Your task to perform on an android device: toggle priority inbox in the gmail app Image 0: 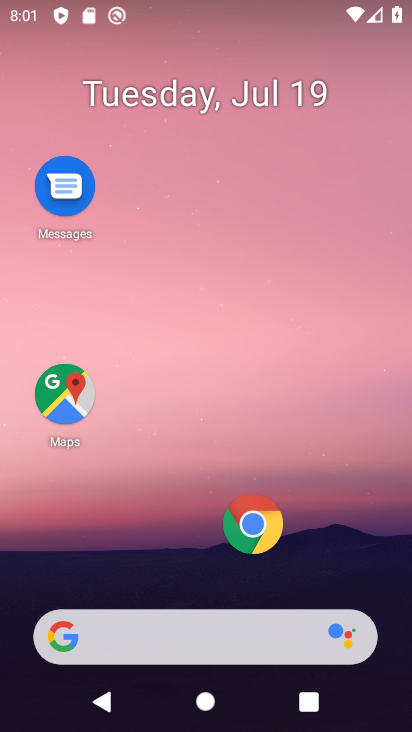
Step 0: drag from (185, 574) to (371, 168)
Your task to perform on an android device: toggle priority inbox in the gmail app Image 1: 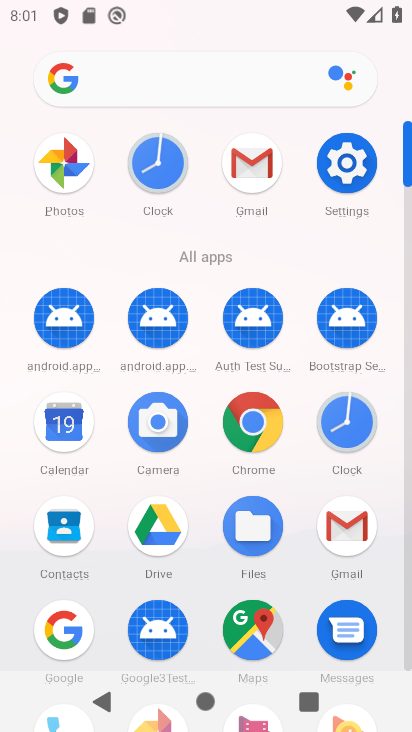
Step 1: click (349, 540)
Your task to perform on an android device: toggle priority inbox in the gmail app Image 2: 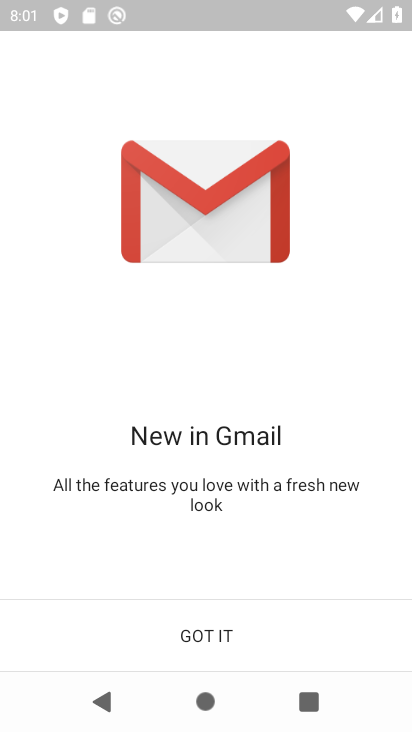
Step 2: click (170, 628)
Your task to perform on an android device: toggle priority inbox in the gmail app Image 3: 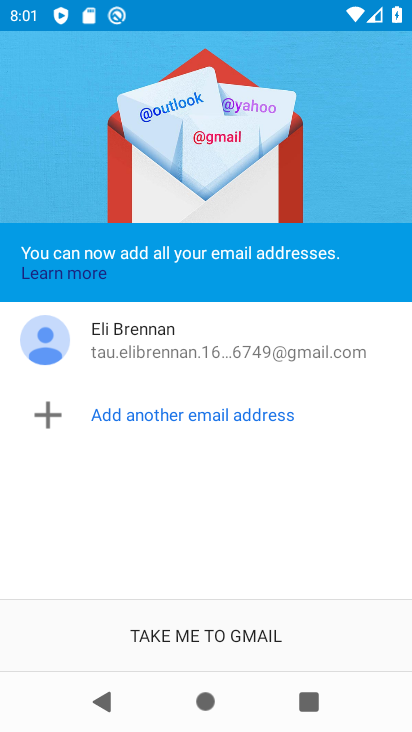
Step 3: click (170, 628)
Your task to perform on an android device: toggle priority inbox in the gmail app Image 4: 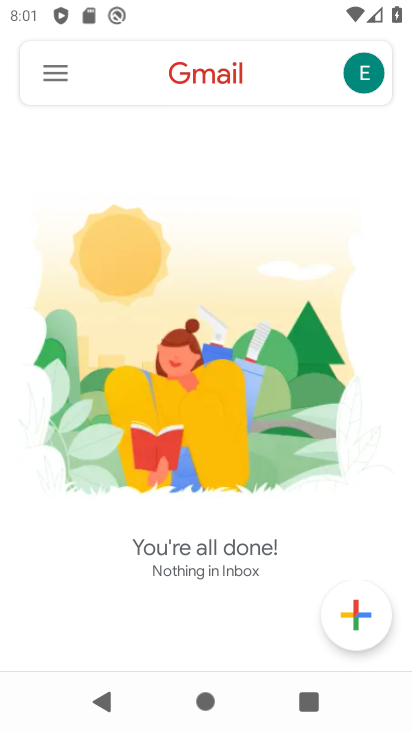
Step 4: click (45, 58)
Your task to perform on an android device: toggle priority inbox in the gmail app Image 5: 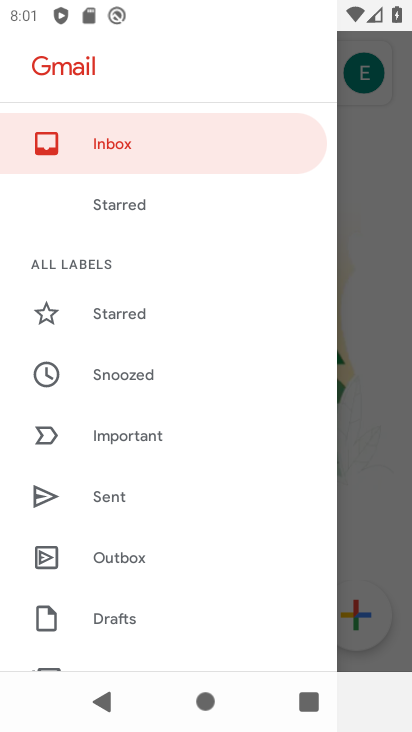
Step 5: drag from (179, 580) to (189, 27)
Your task to perform on an android device: toggle priority inbox in the gmail app Image 6: 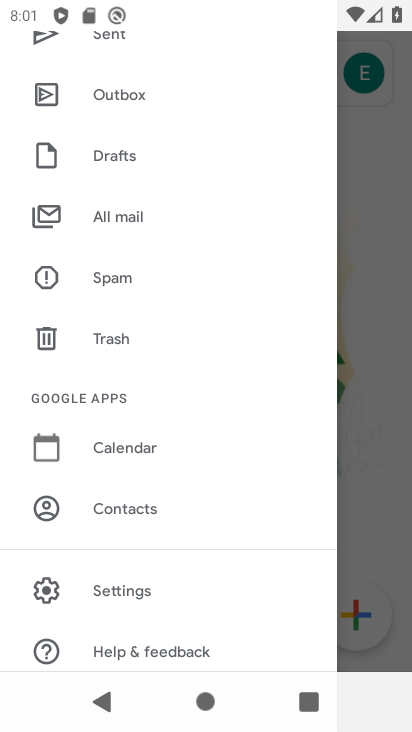
Step 6: click (68, 570)
Your task to perform on an android device: toggle priority inbox in the gmail app Image 7: 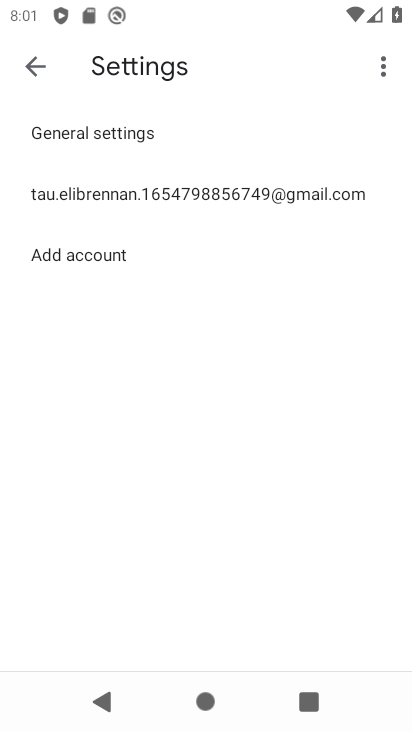
Step 7: click (94, 199)
Your task to perform on an android device: toggle priority inbox in the gmail app Image 8: 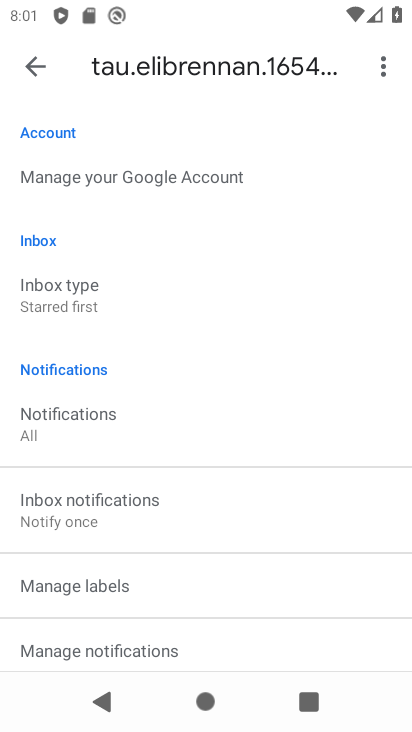
Step 8: click (41, 290)
Your task to perform on an android device: toggle priority inbox in the gmail app Image 9: 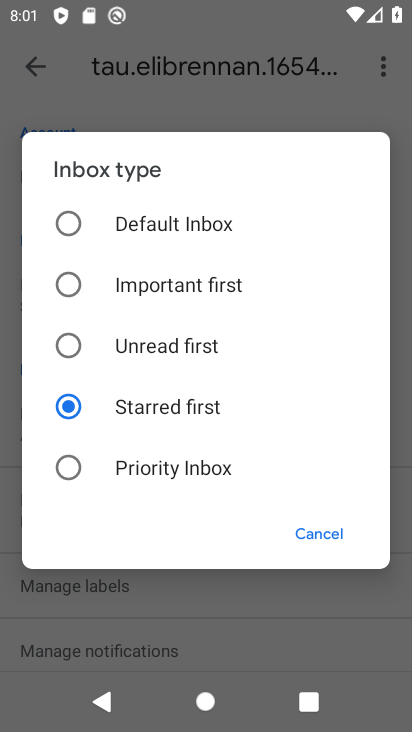
Step 9: click (61, 468)
Your task to perform on an android device: toggle priority inbox in the gmail app Image 10: 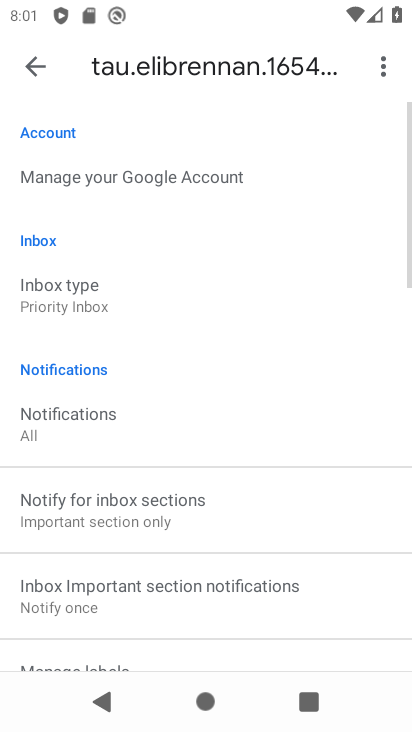
Step 10: task complete